Your task to perform on an android device: toggle location history Image 0: 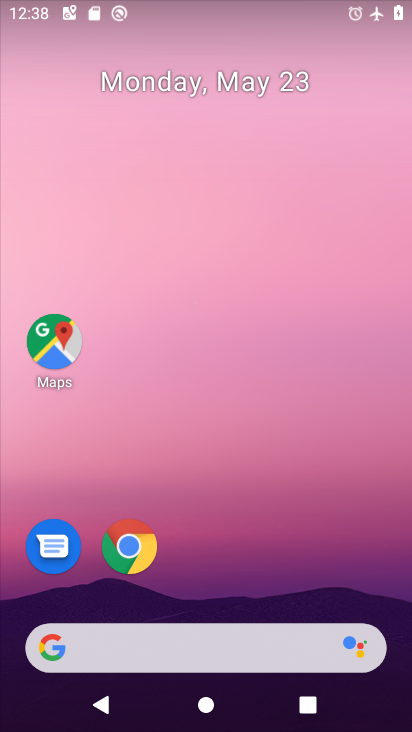
Step 0: drag from (254, 620) to (405, 155)
Your task to perform on an android device: toggle location history Image 1: 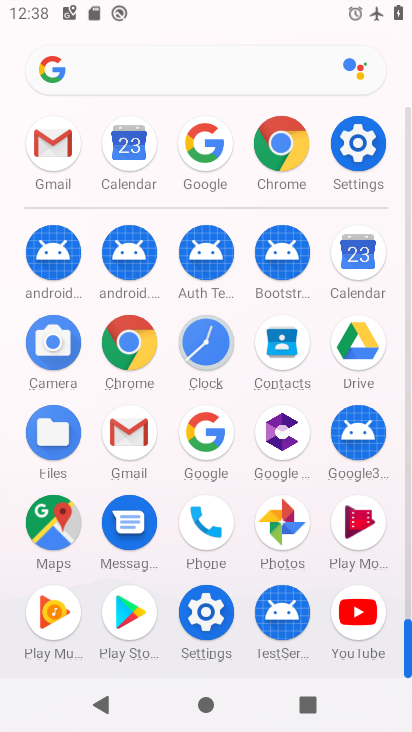
Step 1: click (354, 158)
Your task to perform on an android device: toggle location history Image 2: 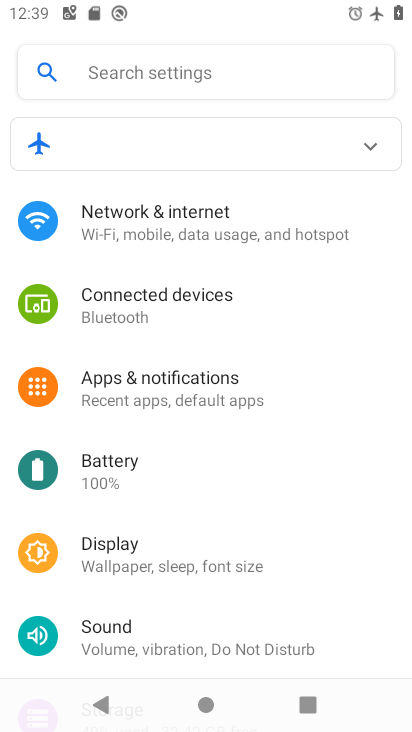
Step 2: drag from (165, 435) to (267, 36)
Your task to perform on an android device: toggle location history Image 3: 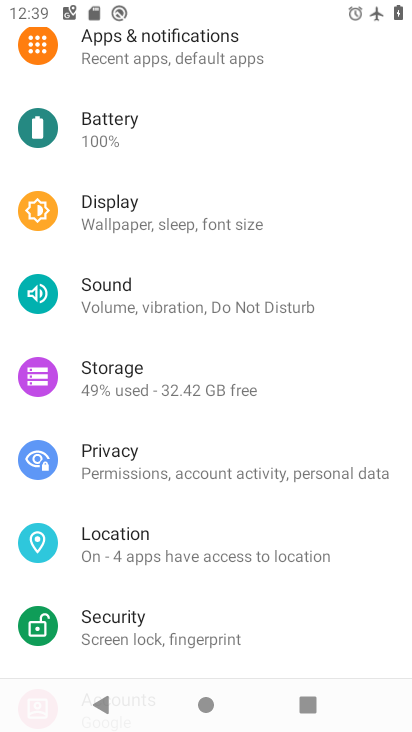
Step 3: click (192, 550)
Your task to perform on an android device: toggle location history Image 4: 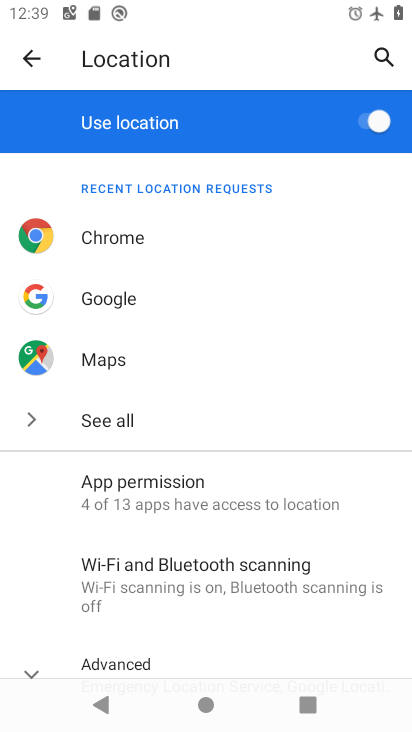
Step 4: drag from (187, 563) to (260, 155)
Your task to perform on an android device: toggle location history Image 5: 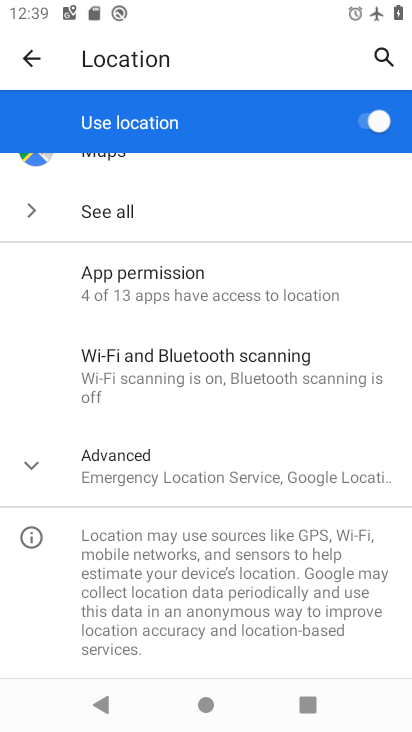
Step 5: click (193, 478)
Your task to perform on an android device: toggle location history Image 6: 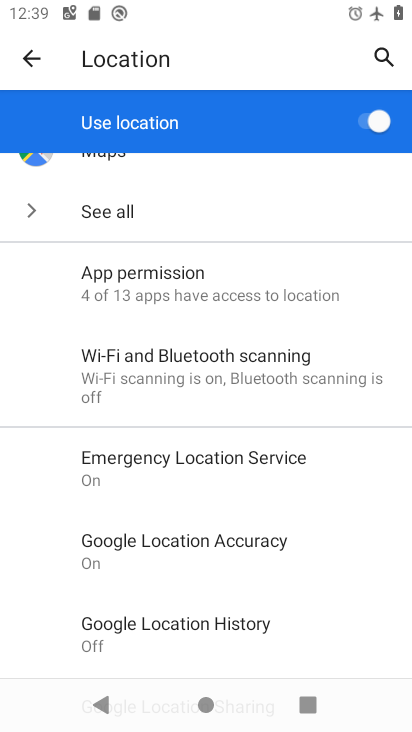
Step 6: click (226, 626)
Your task to perform on an android device: toggle location history Image 7: 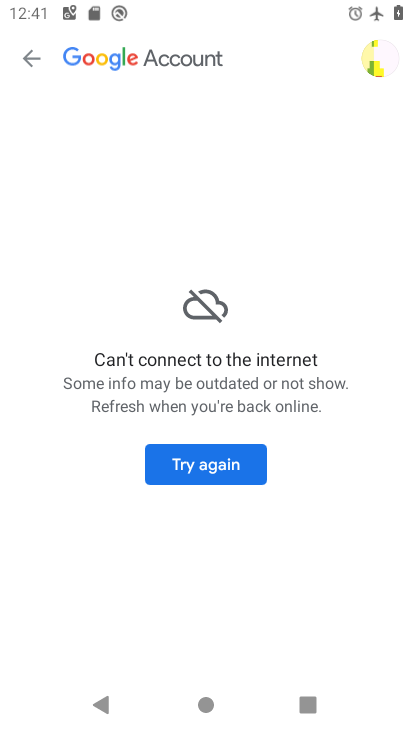
Step 7: task complete